Your task to perform on an android device: toggle javascript in the chrome app Image 0: 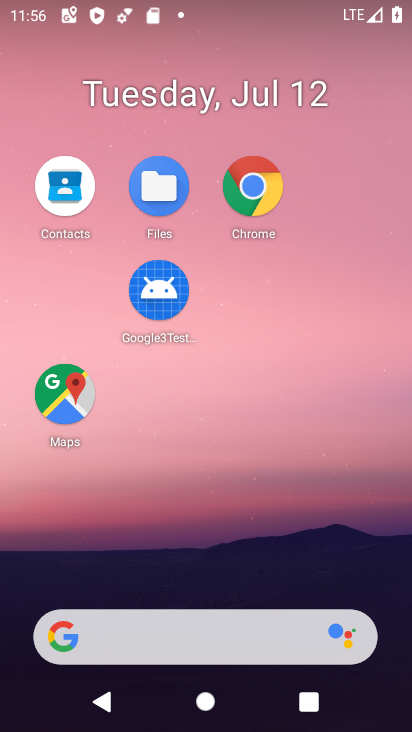
Step 0: click (246, 171)
Your task to perform on an android device: toggle javascript in the chrome app Image 1: 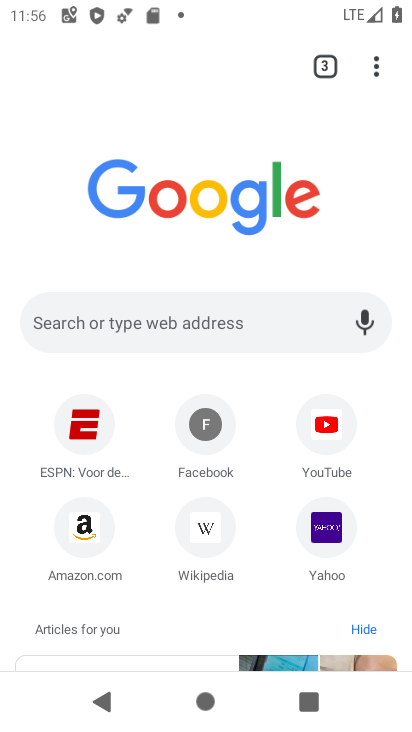
Step 1: click (377, 73)
Your task to perform on an android device: toggle javascript in the chrome app Image 2: 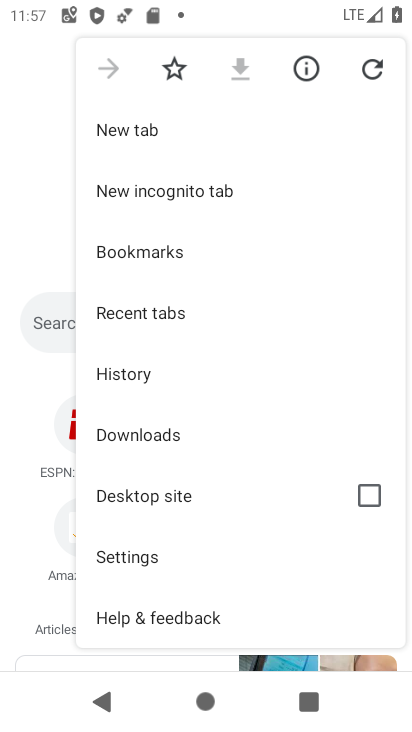
Step 2: click (135, 549)
Your task to perform on an android device: toggle javascript in the chrome app Image 3: 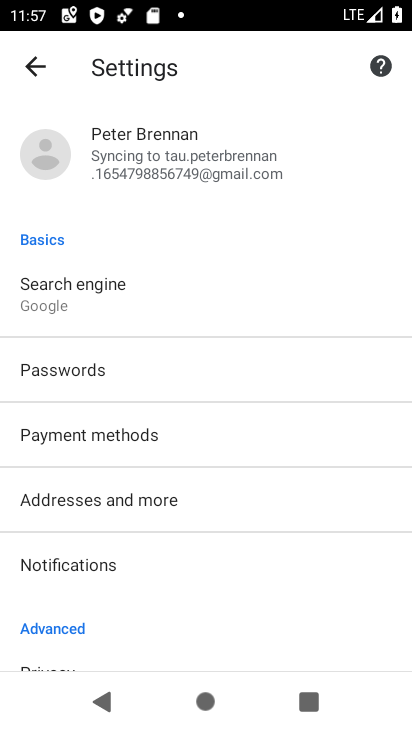
Step 3: drag from (135, 549) to (73, 206)
Your task to perform on an android device: toggle javascript in the chrome app Image 4: 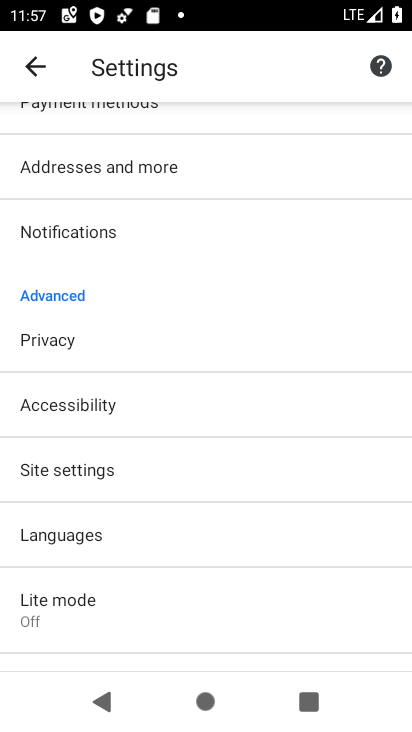
Step 4: click (34, 454)
Your task to perform on an android device: toggle javascript in the chrome app Image 5: 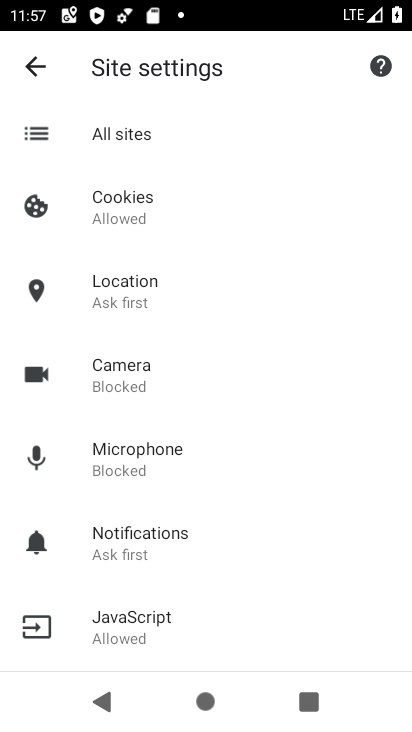
Step 5: click (140, 619)
Your task to perform on an android device: toggle javascript in the chrome app Image 6: 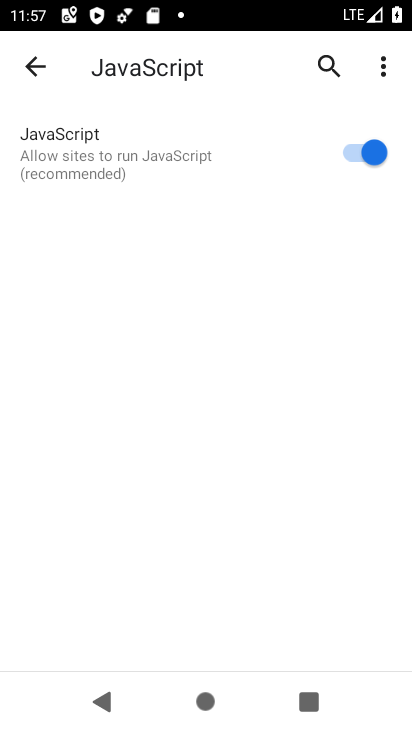
Step 6: click (363, 143)
Your task to perform on an android device: toggle javascript in the chrome app Image 7: 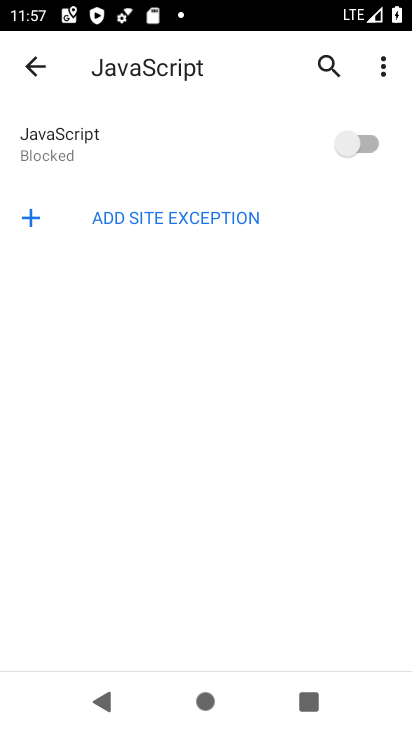
Step 7: task complete